Your task to perform on an android device: Open sound settings Image 0: 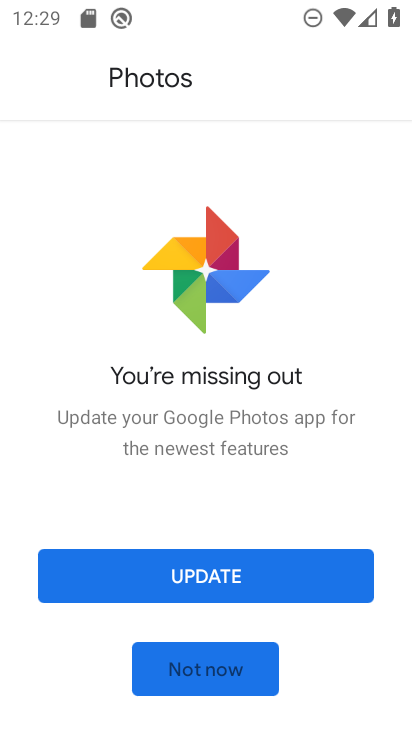
Step 0: press home button
Your task to perform on an android device: Open sound settings Image 1: 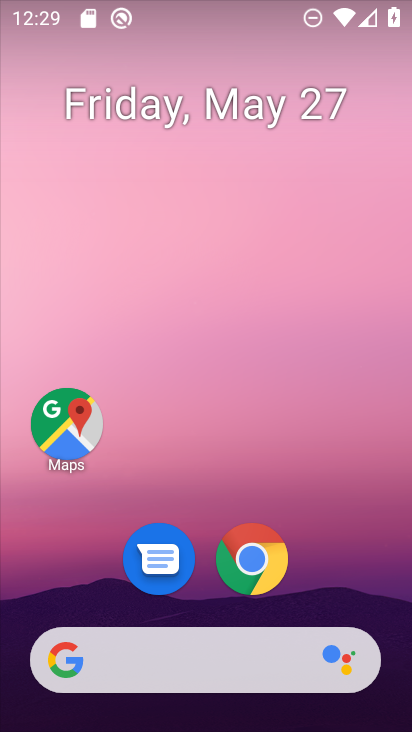
Step 1: drag from (343, 537) to (350, 61)
Your task to perform on an android device: Open sound settings Image 2: 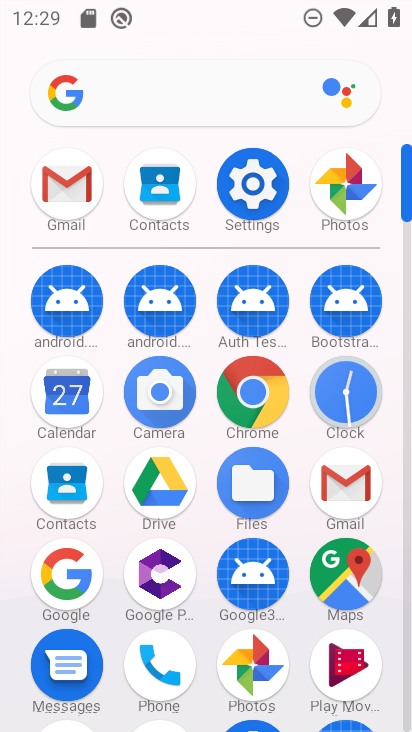
Step 2: click (247, 207)
Your task to perform on an android device: Open sound settings Image 3: 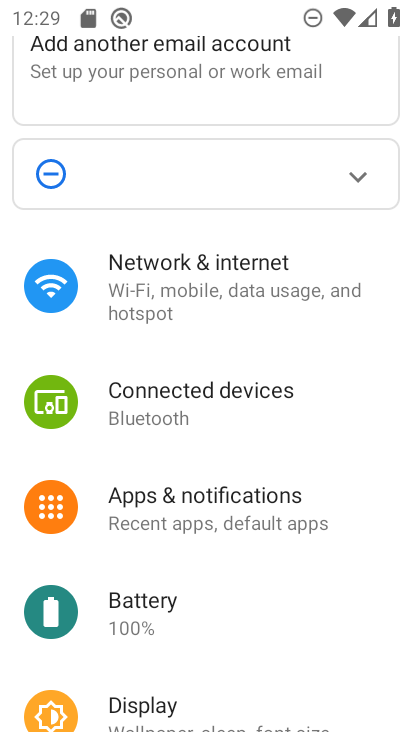
Step 3: drag from (205, 478) to (277, 141)
Your task to perform on an android device: Open sound settings Image 4: 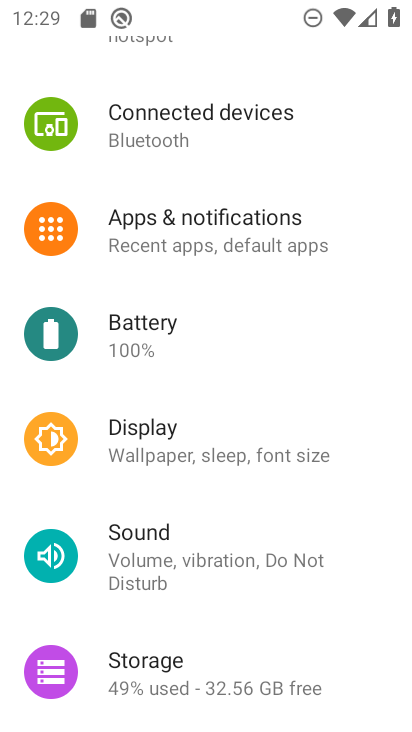
Step 4: click (161, 575)
Your task to perform on an android device: Open sound settings Image 5: 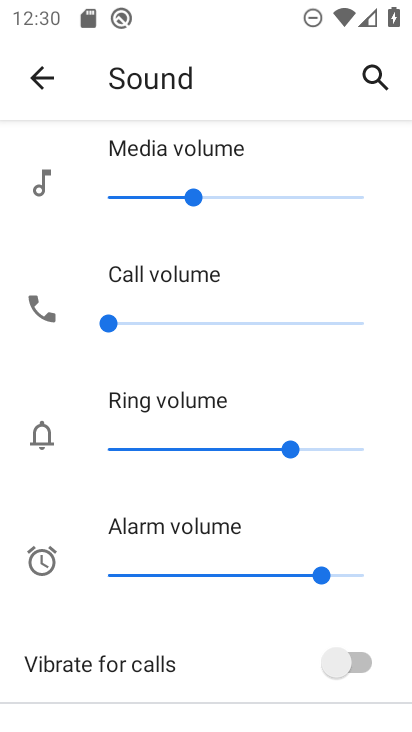
Step 5: task complete